Your task to perform on an android device: turn vacation reply on in the gmail app Image 0: 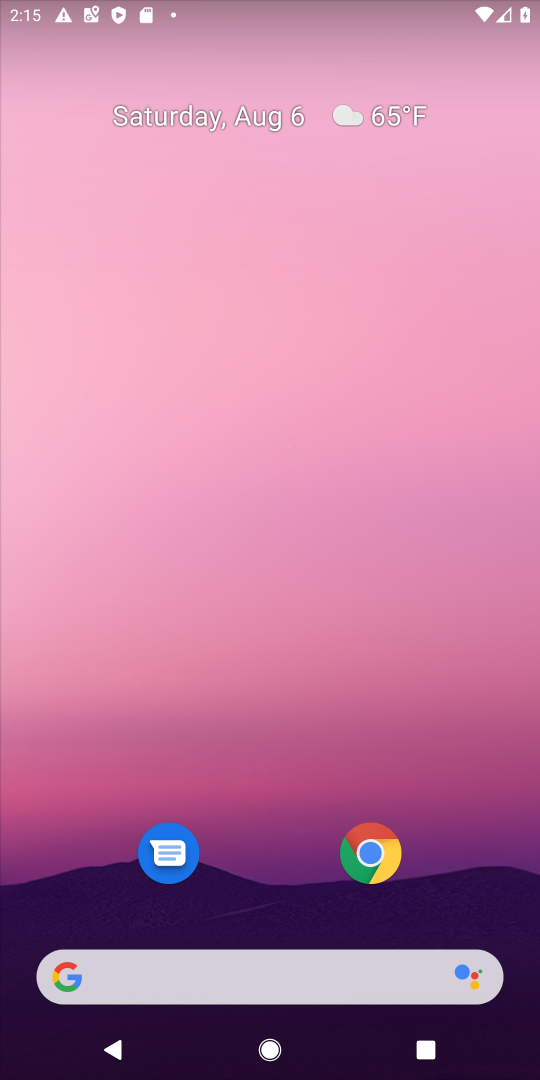
Step 0: drag from (220, 894) to (320, 90)
Your task to perform on an android device: turn vacation reply on in the gmail app Image 1: 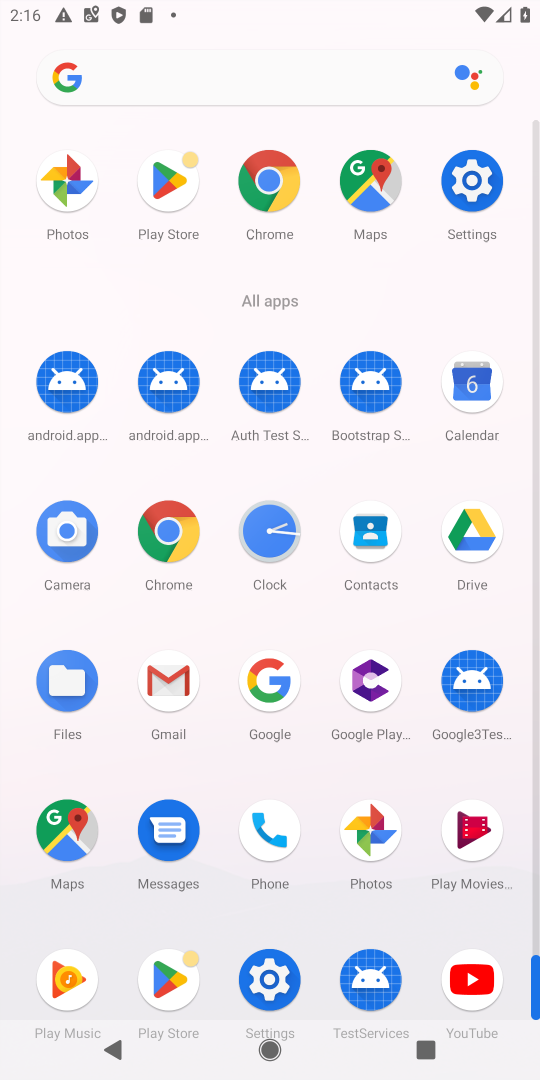
Step 1: click (156, 686)
Your task to perform on an android device: turn vacation reply on in the gmail app Image 2: 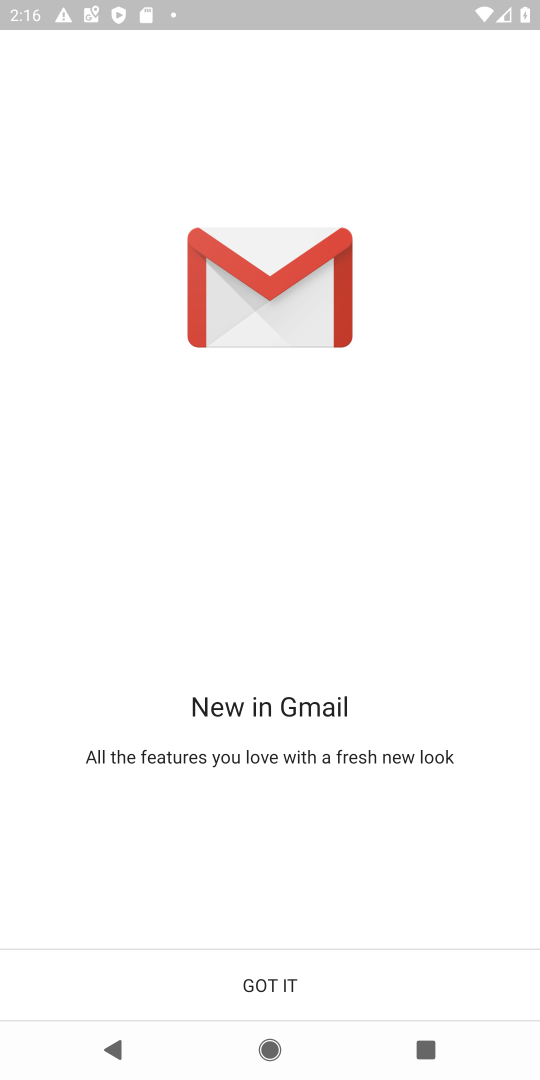
Step 2: click (275, 973)
Your task to perform on an android device: turn vacation reply on in the gmail app Image 3: 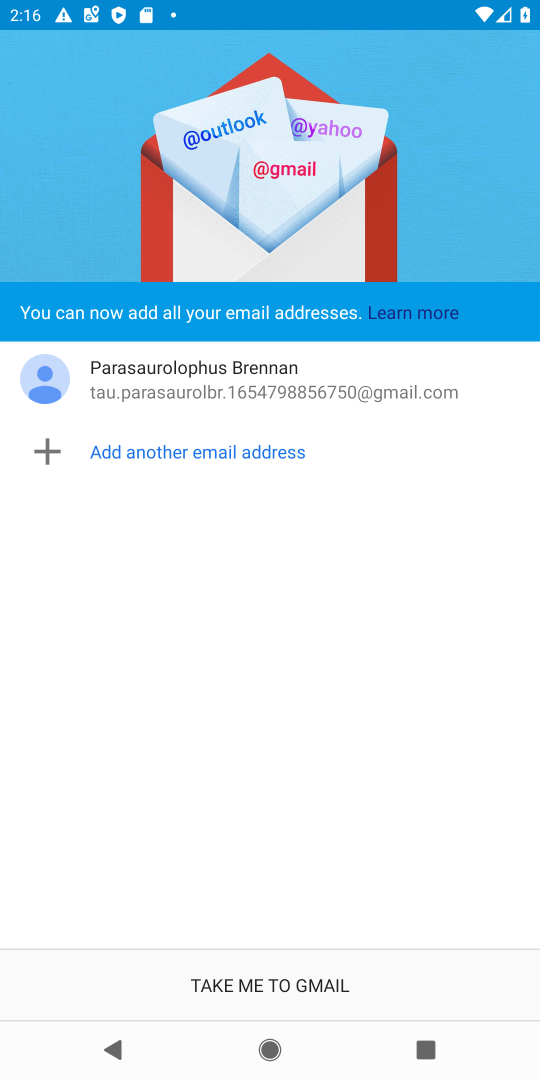
Step 3: click (279, 976)
Your task to perform on an android device: turn vacation reply on in the gmail app Image 4: 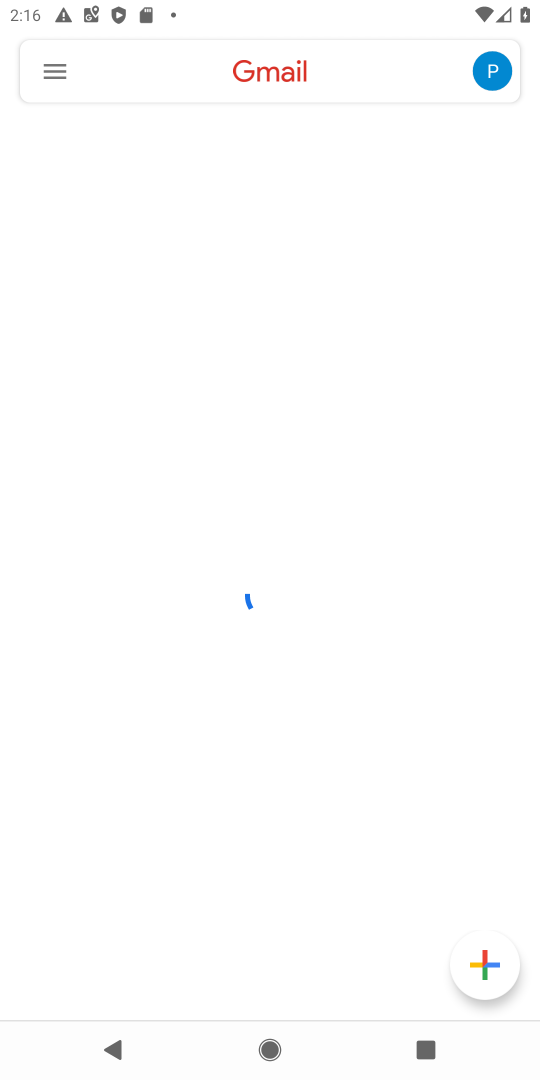
Step 4: click (56, 72)
Your task to perform on an android device: turn vacation reply on in the gmail app Image 5: 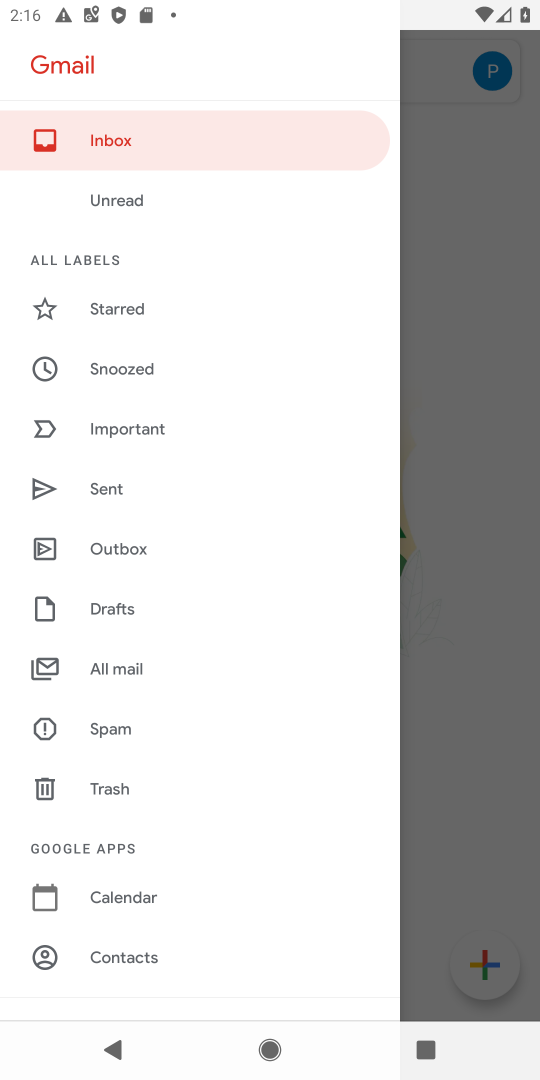
Step 5: drag from (159, 941) to (267, 237)
Your task to perform on an android device: turn vacation reply on in the gmail app Image 6: 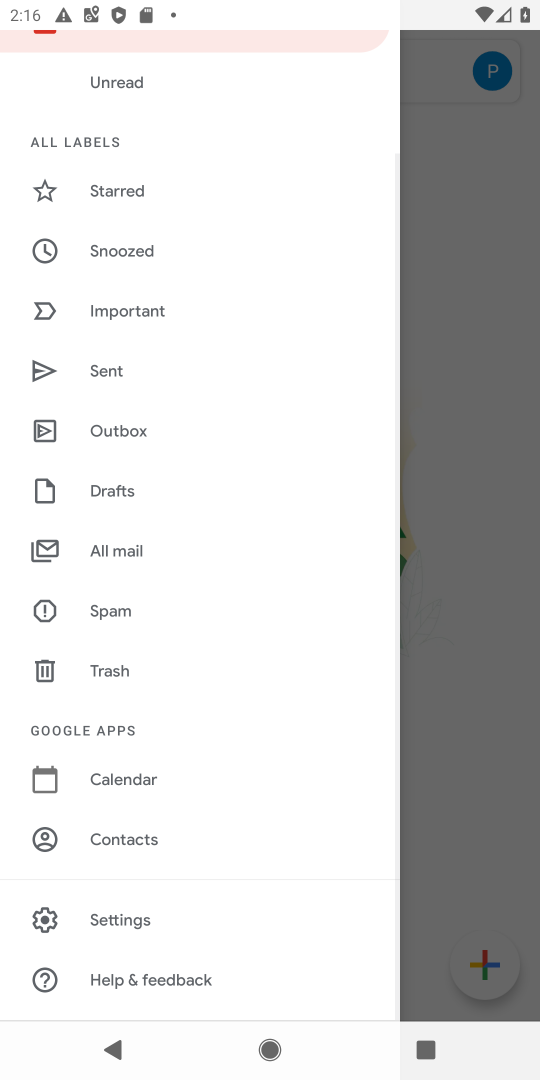
Step 6: click (138, 924)
Your task to perform on an android device: turn vacation reply on in the gmail app Image 7: 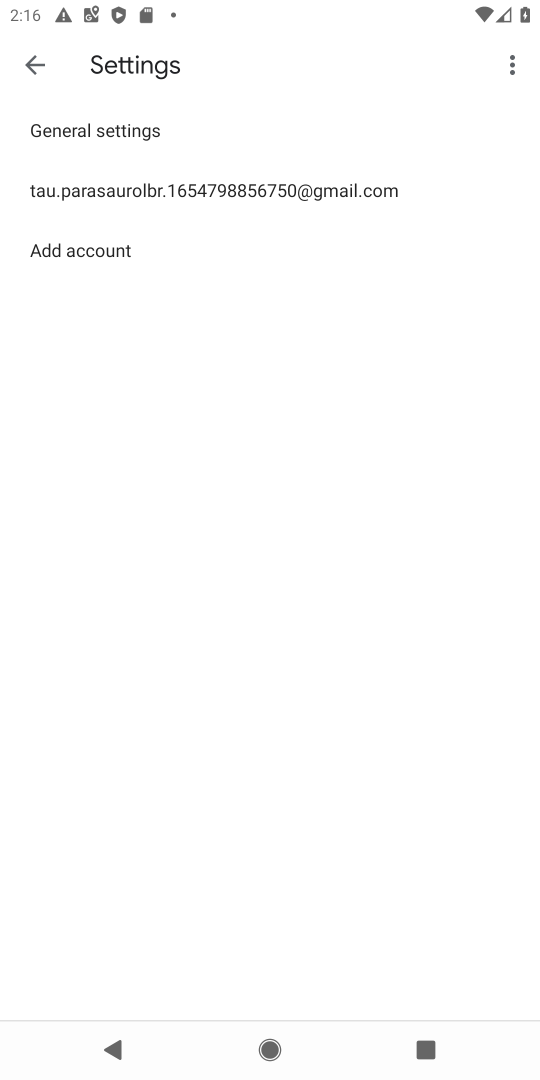
Step 7: click (223, 195)
Your task to perform on an android device: turn vacation reply on in the gmail app Image 8: 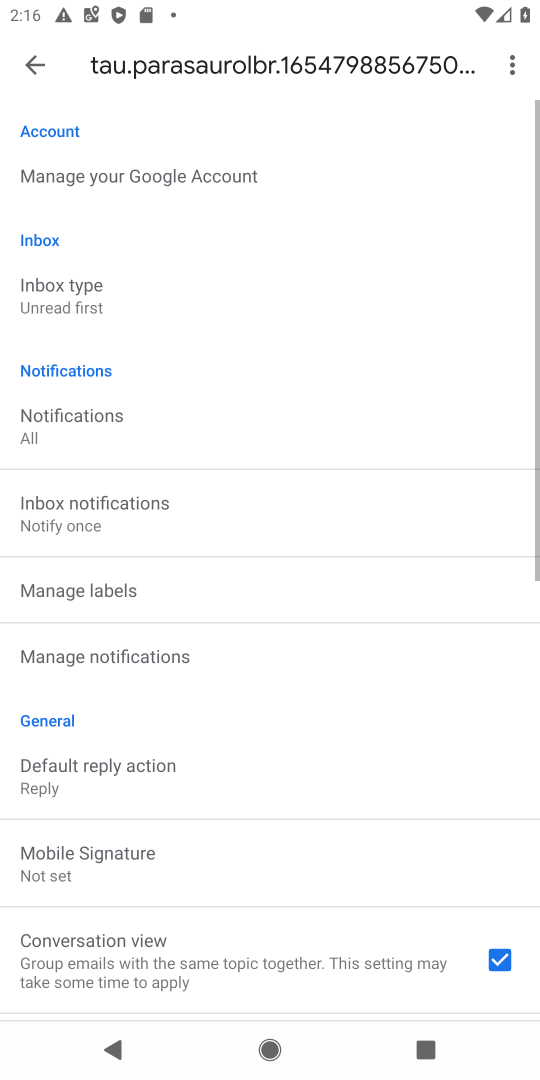
Step 8: drag from (218, 916) to (387, 84)
Your task to perform on an android device: turn vacation reply on in the gmail app Image 9: 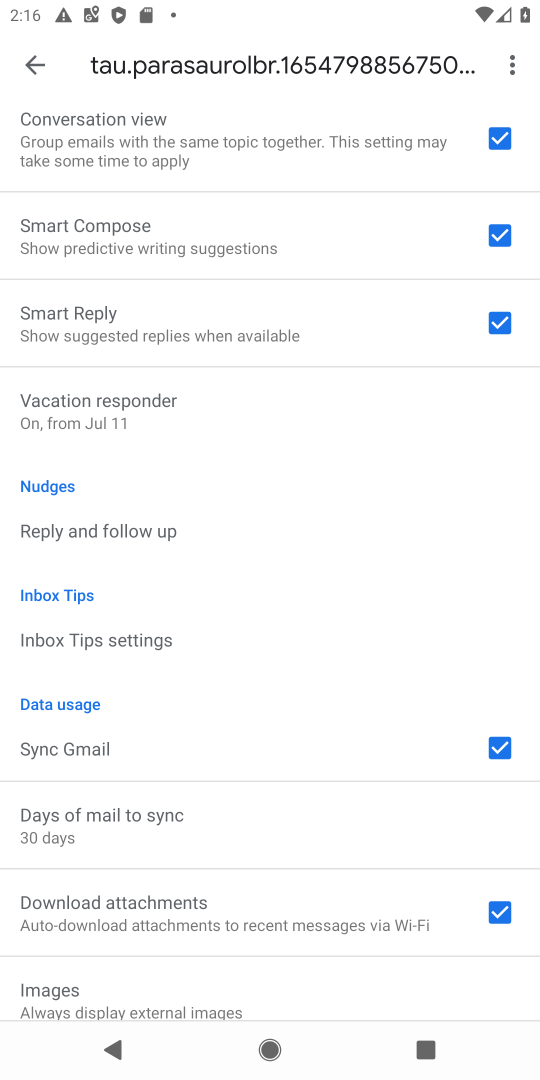
Step 9: click (79, 428)
Your task to perform on an android device: turn vacation reply on in the gmail app Image 10: 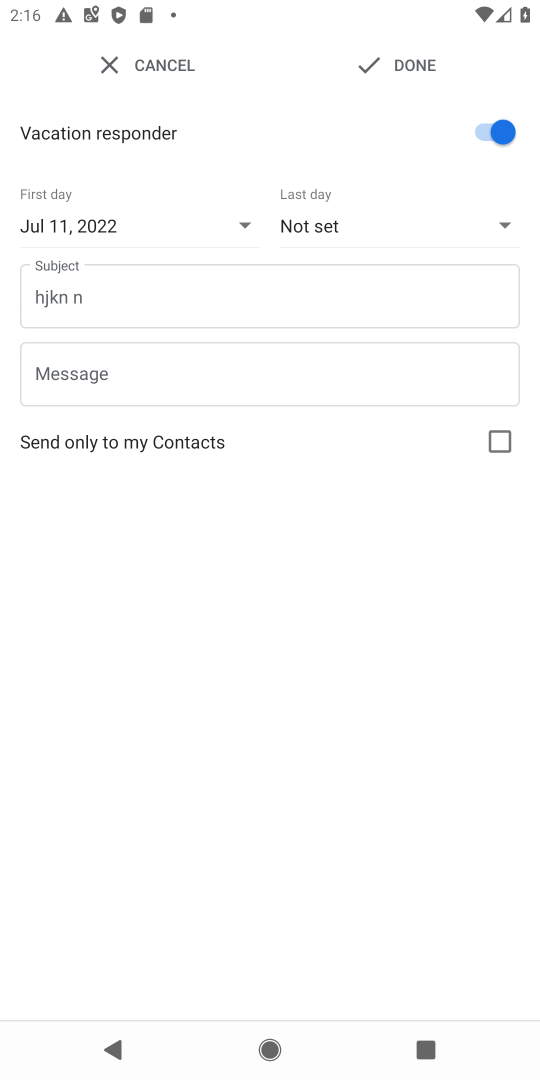
Step 10: task complete